Your task to perform on an android device: toggle location history Image 0: 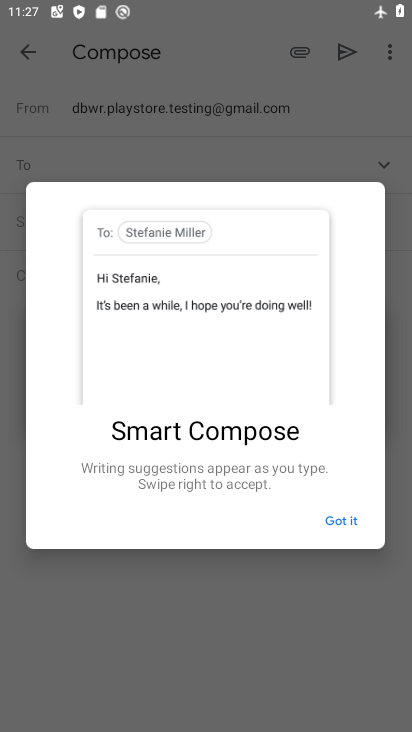
Step 0: press home button
Your task to perform on an android device: toggle location history Image 1: 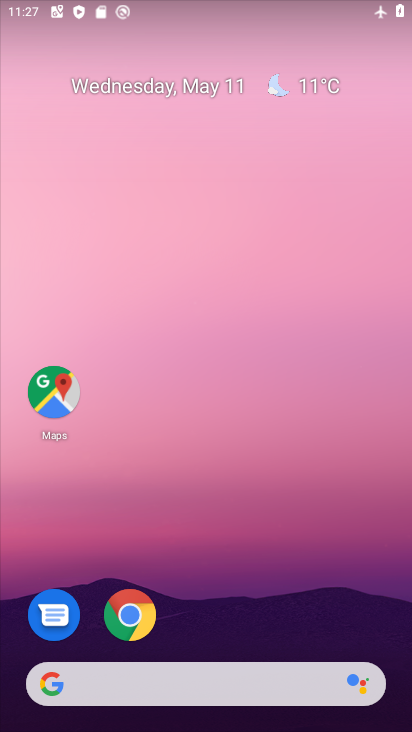
Step 1: drag from (311, 603) to (324, 78)
Your task to perform on an android device: toggle location history Image 2: 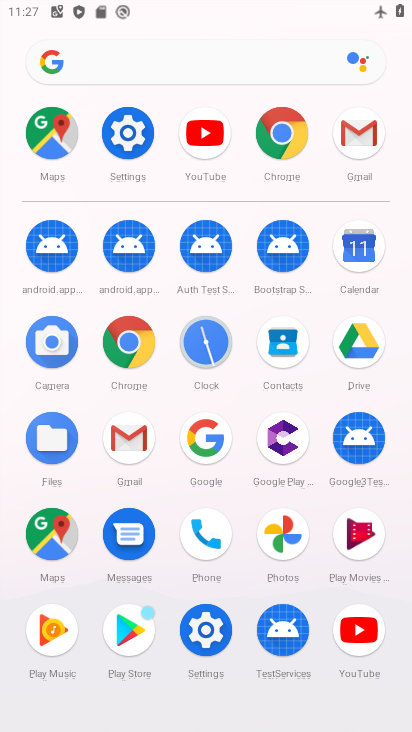
Step 2: click (137, 129)
Your task to perform on an android device: toggle location history Image 3: 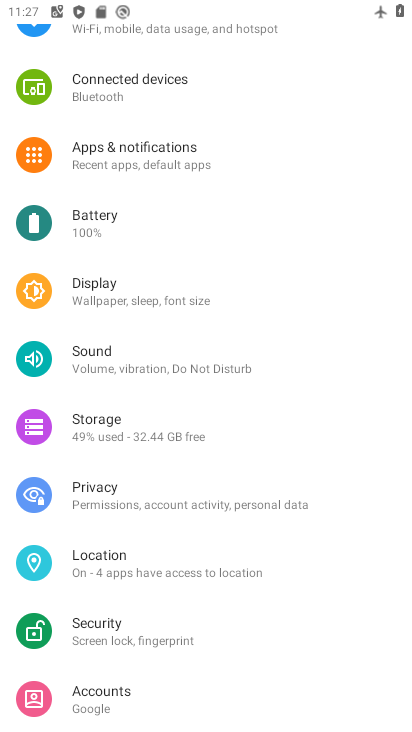
Step 3: click (164, 574)
Your task to perform on an android device: toggle location history Image 4: 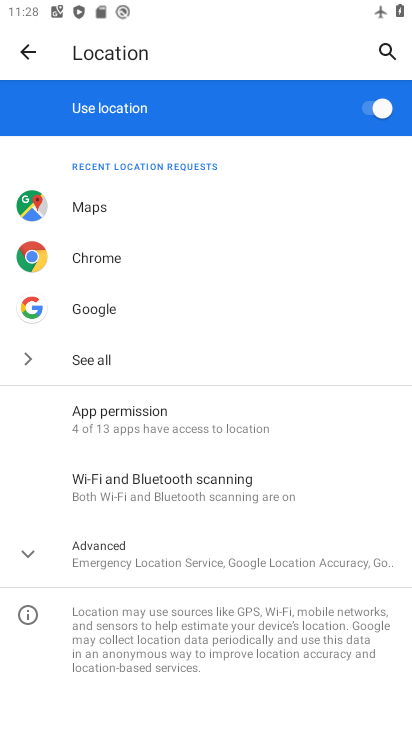
Step 4: click (114, 541)
Your task to perform on an android device: toggle location history Image 5: 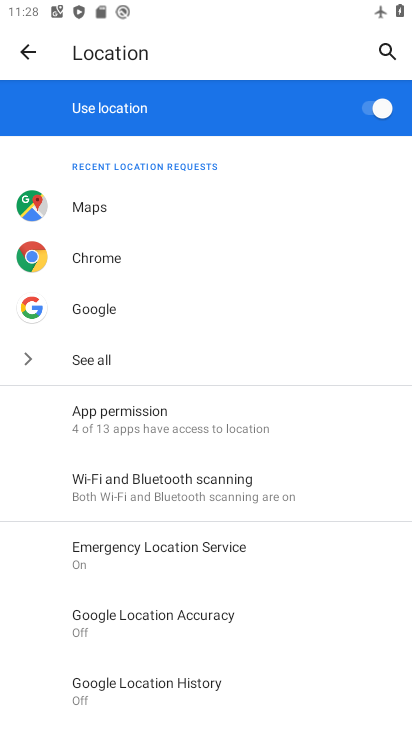
Step 5: drag from (195, 604) to (272, 173)
Your task to perform on an android device: toggle location history Image 6: 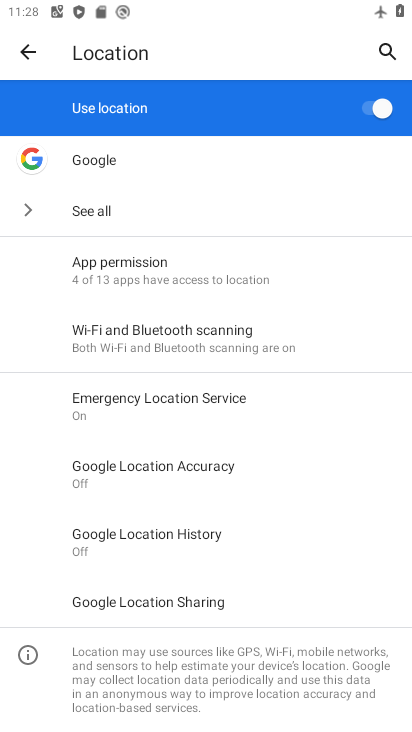
Step 6: click (190, 532)
Your task to perform on an android device: toggle location history Image 7: 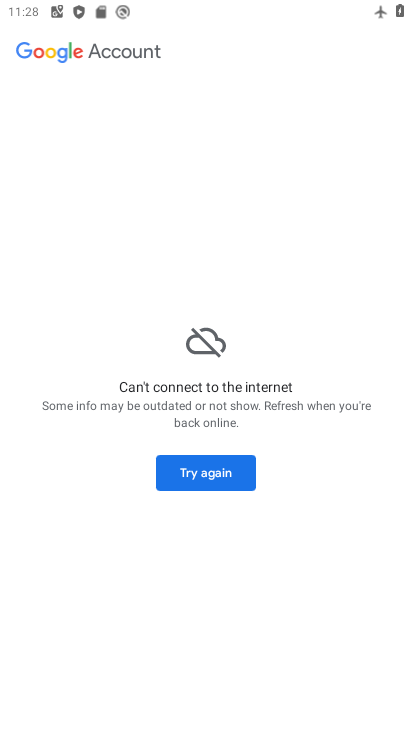
Step 7: task complete